Your task to perform on an android device: turn pop-ups on in chrome Image 0: 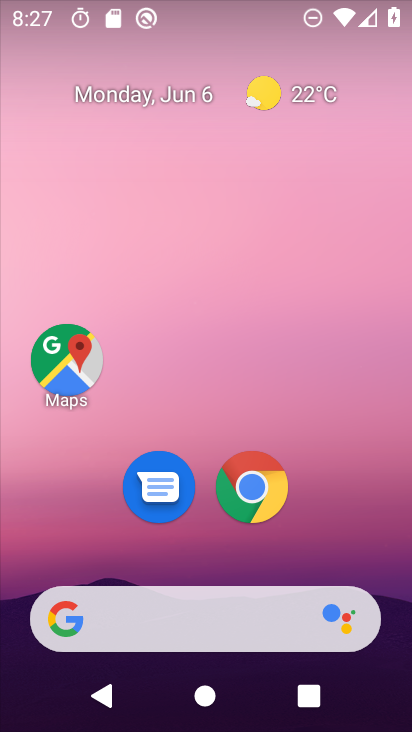
Step 0: drag from (404, 633) to (242, 88)
Your task to perform on an android device: turn pop-ups on in chrome Image 1: 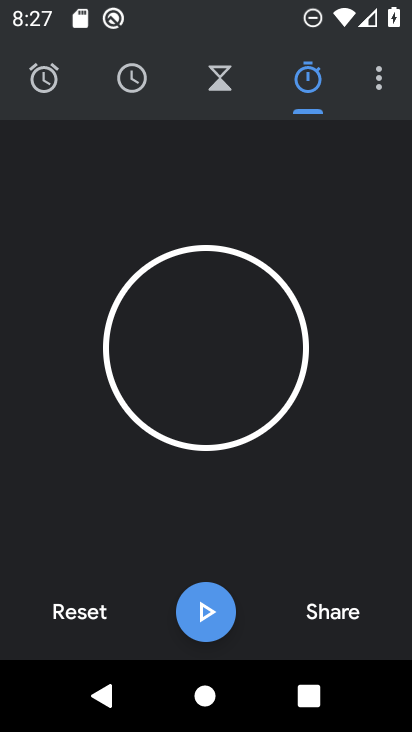
Step 1: press home button
Your task to perform on an android device: turn pop-ups on in chrome Image 2: 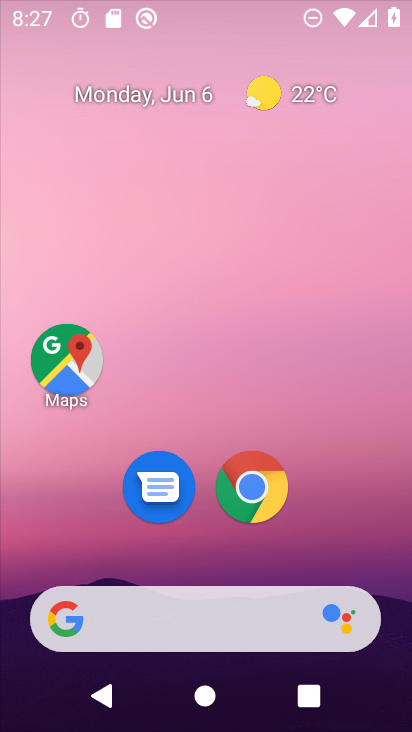
Step 2: drag from (391, 650) to (261, 138)
Your task to perform on an android device: turn pop-ups on in chrome Image 3: 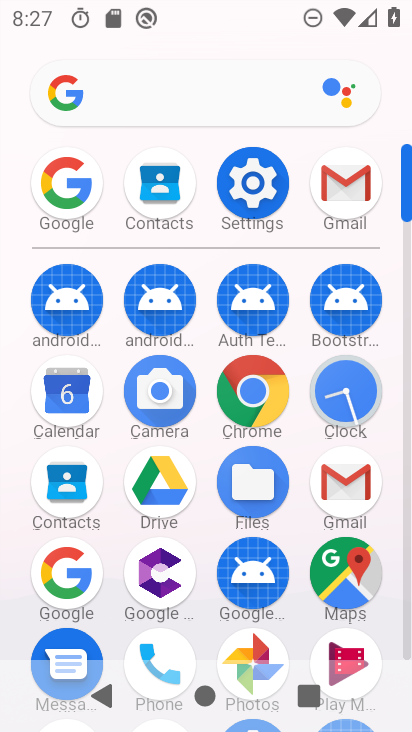
Step 3: click (267, 392)
Your task to perform on an android device: turn pop-ups on in chrome Image 4: 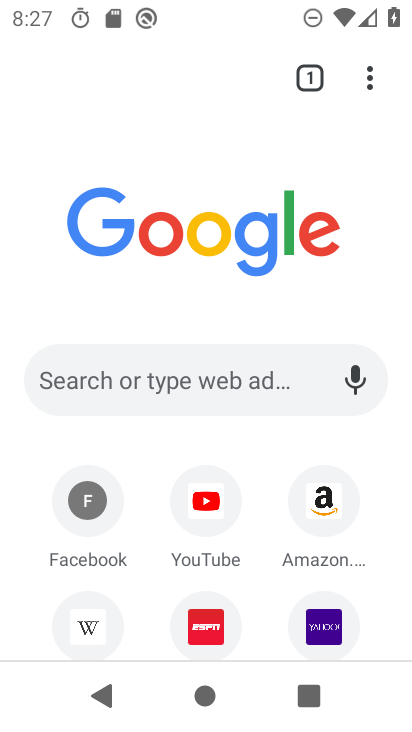
Step 4: click (375, 72)
Your task to perform on an android device: turn pop-ups on in chrome Image 5: 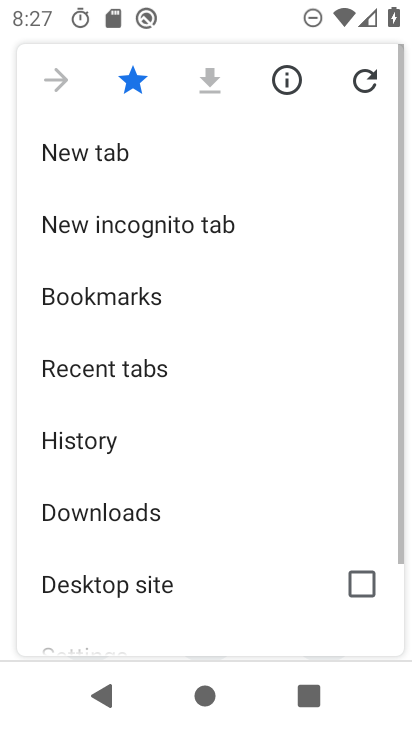
Step 5: drag from (157, 606) to (220, 139)
Your task to perform on an android device: turn pop-ups on in chrome Image 6: 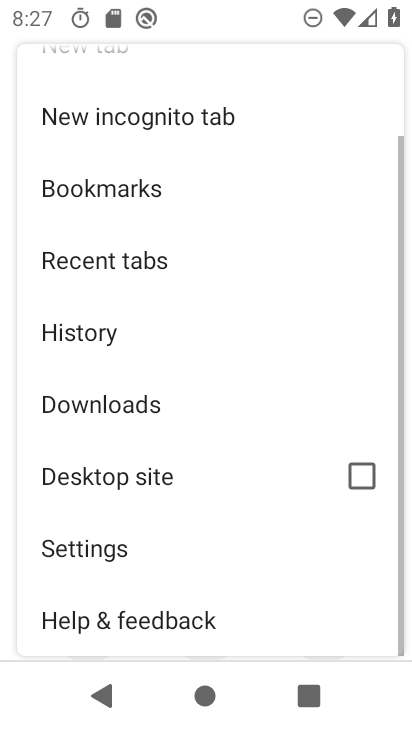
Step 6: click (123, 573)
Your task to perform on an android device: turn pop-ups on in chrome Image 7: 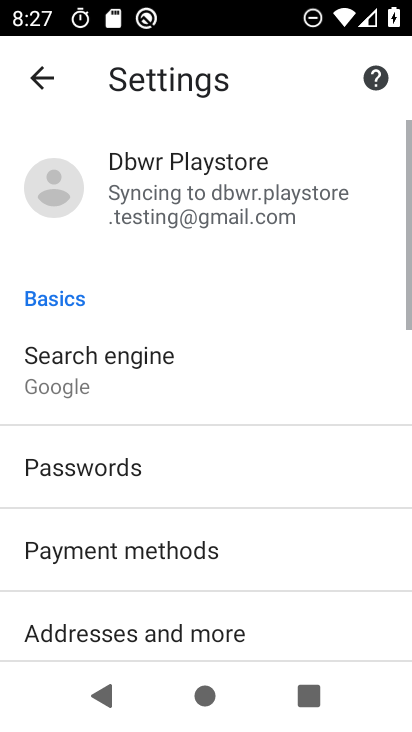
Step 7: drag from (120, 608) to (180, 80)
Your task to perform on an android device: turn pop-ups on in chrome Image 8: 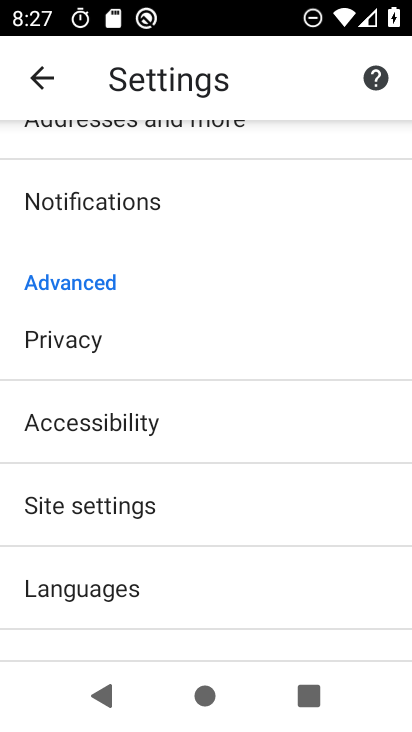
Step 8: click (121, 511)
Your task to perform on an android device: turn pop-ups on in chrome Image 9: 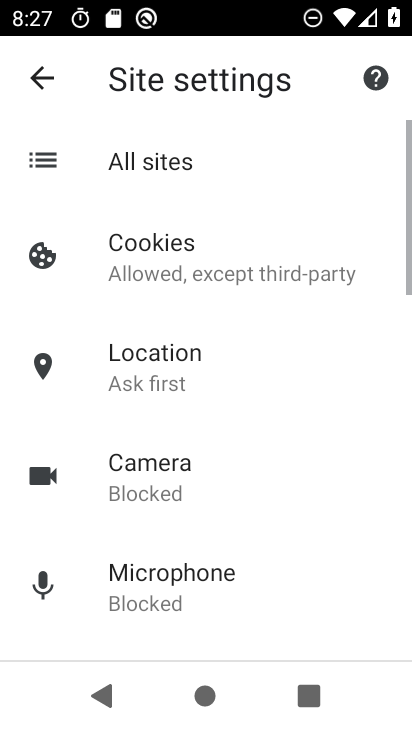
Step 9: drag from (233, 607) to (256, 144)
Your task to perform on an android device: turn pop-ups on in chrome Image 10: 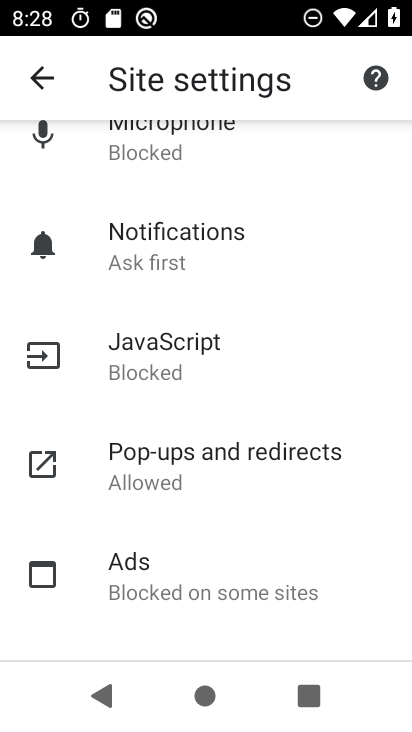
Step 10: click (238, 473)
Your task to perform on an android device: turn pop-ups on in chrome Image 11: 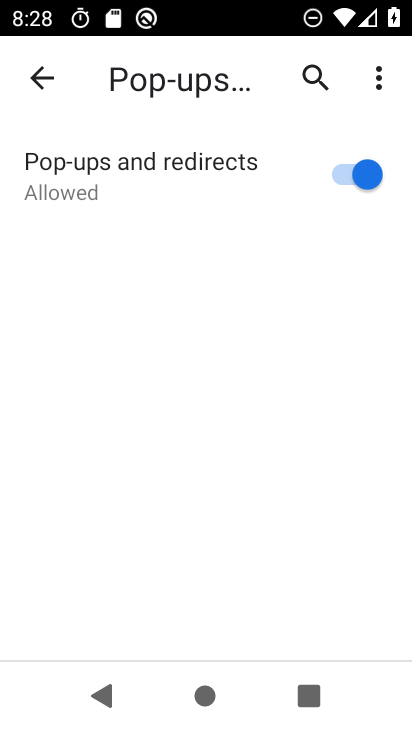
Step 11: task complete